Your task to perform on an android device: Open the calendar and show me this week's events? Image 0: 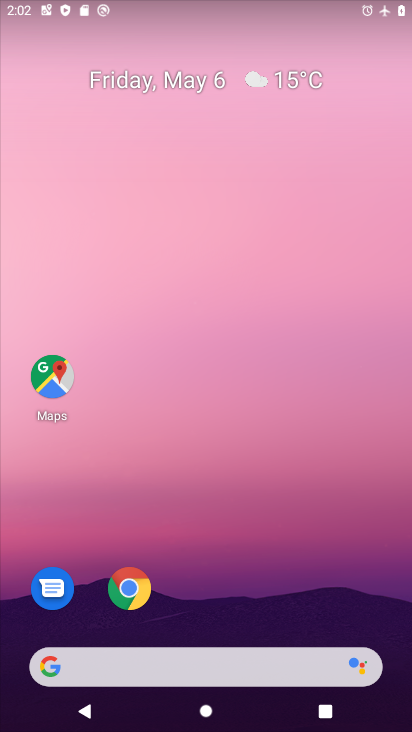
Step 0: drag from (214, 632) to (215, 142)
Your task to perform on an android device: Open the calendar and show me this week's events? Image 1: 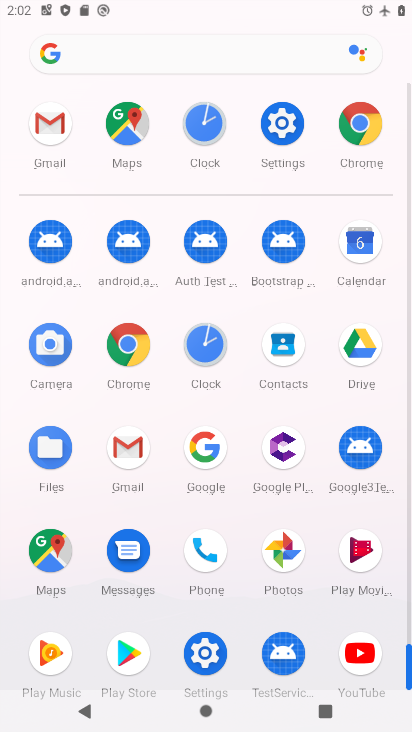
Step 1: click (357, 229)
Your task to perform on an android device: Open the calendar and show me this week's events? Image 2: 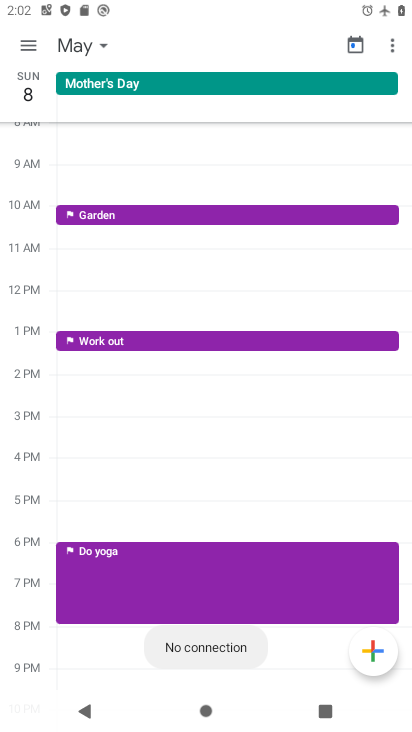
Step 2: click (348, 249)
Your task to perform on an android device: Open the calendar and show me this week's events? Image 3: 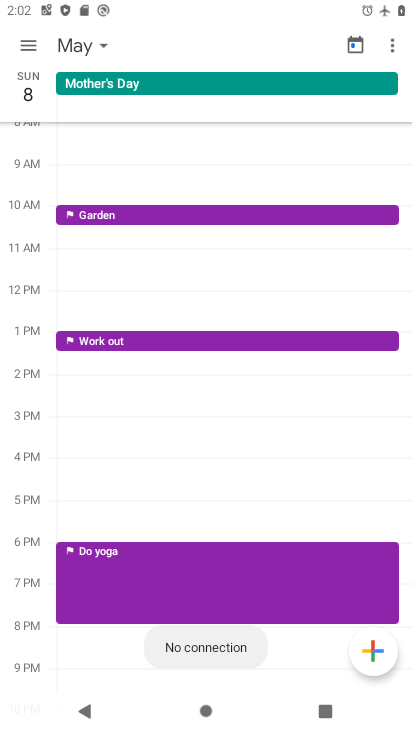
Step 3: drag from (348, 249) to (287, 465)
Your task to perform on an android device: Open the calendar and show me this week's events? Image 4: 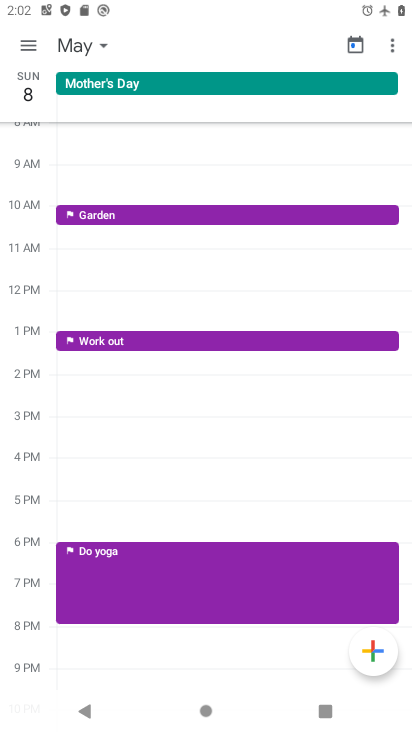
Step 4: drag from (207, 558) to (326, 138)
Your task to perform on an android device: Open the calendar and show me this week's events? Image 5: 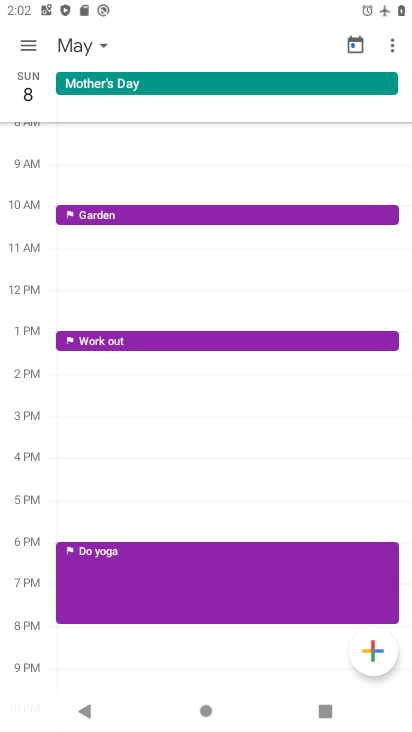
Step 5: drag from (223, 550) to (279, 212)
Your task to perform on an android device: Open the calendar and show me this week's events? Image 6: 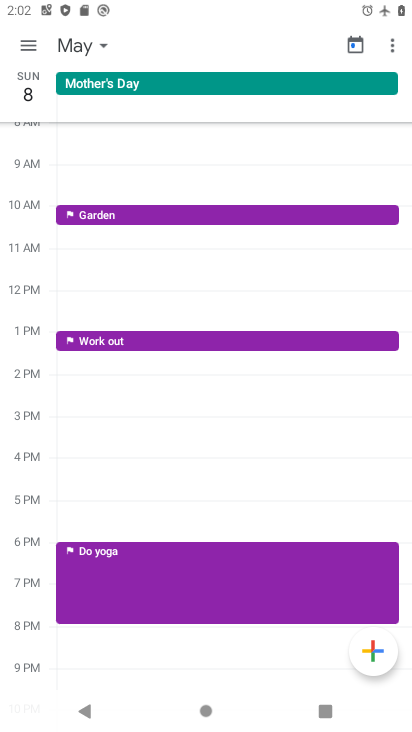
Step 6: drag from (209, 563) to (196, 114)
Your task to perform on an android device: Open the calendar and show me this week's events? Image 7: 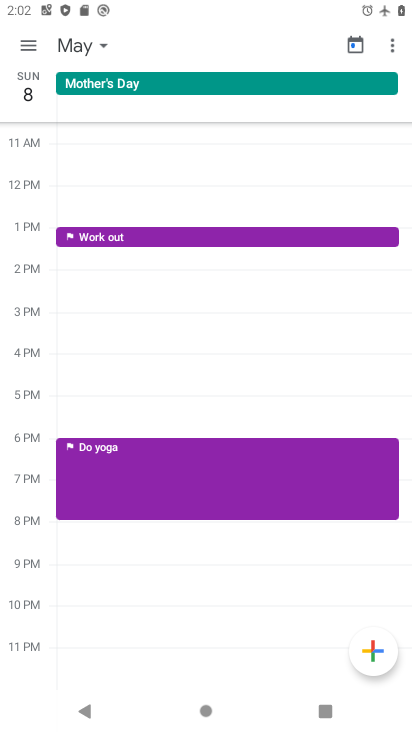
Step 7: click (79, 53)
Your task to perform on an android device: Open the calendar and show me this week's events? Image 8: 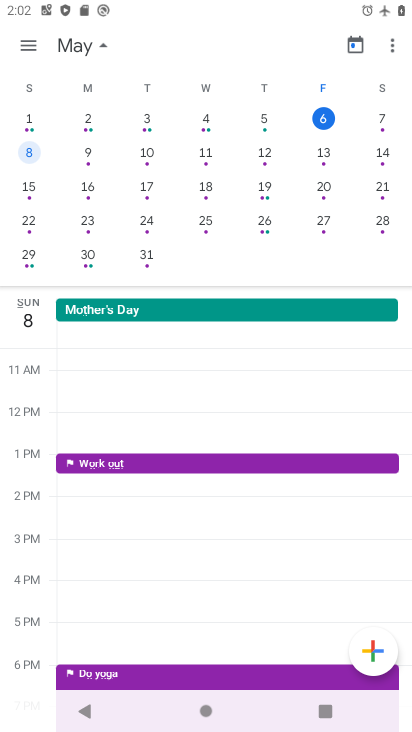
Step 8: click (89, 148)
Your task to perform on an android device: Open the calendar and show me this week's events? Image 9: 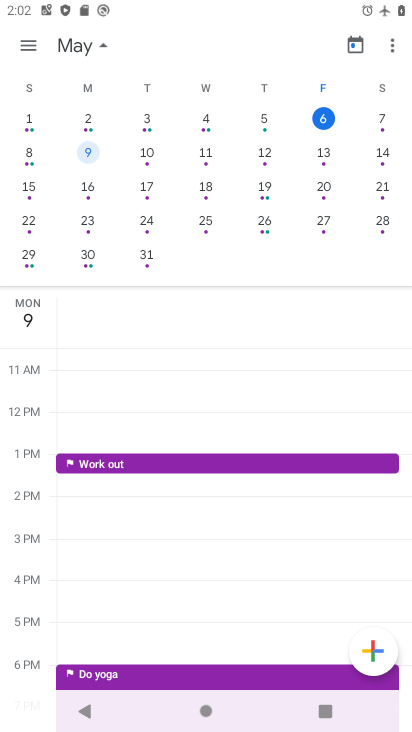
Step 9: task complete